Your task to perform on an android device: Open the Play Movies app and select the watchlist tab. Image 0: 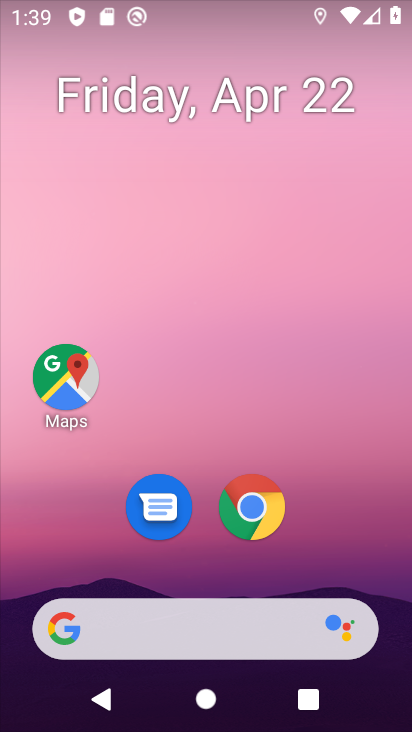
Step 0: drag from (209, 620) to (320, 69)
Your task to perform on an android device: Open the Play Movies app and select the watchlist tab. Image 1: 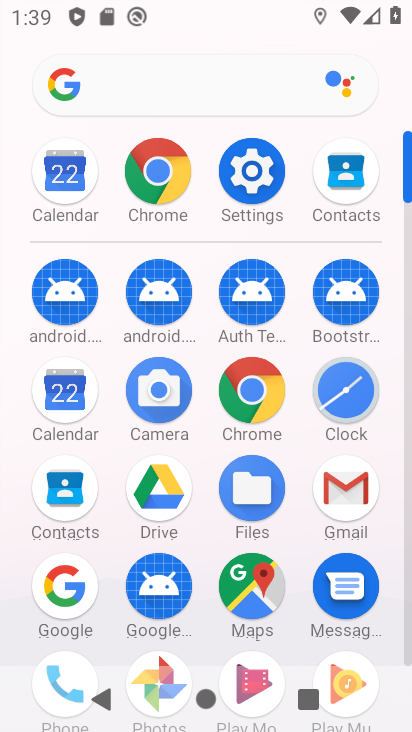
Step 1: drag from (216, 569) to (291, 317)
Your task to perform on an android device: Open the Play Movies app and select the watchlist tab. Image 2: 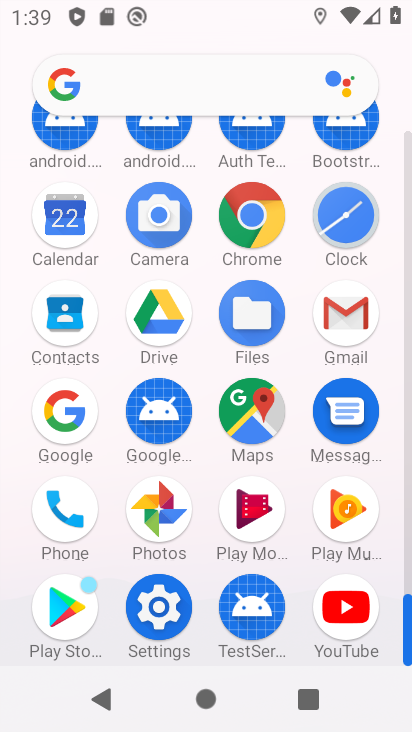
Step 2: click (246, 516)
Your task to perform on an android device: Open the Play Movies app and select the watchlist tab. Image 3: 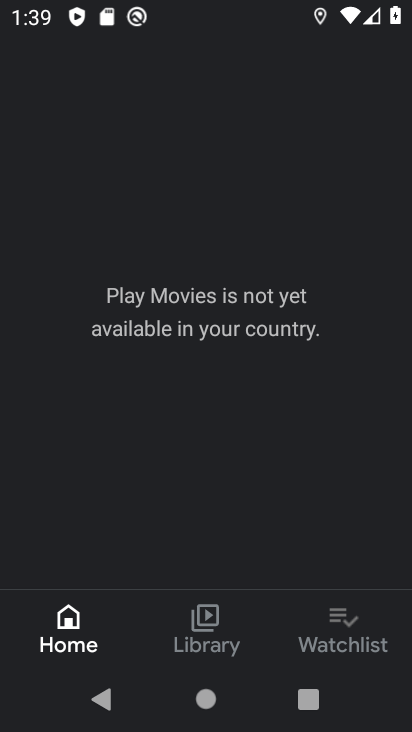
Step 3: click (345, 648)
Your task to perform on an android device: Open the Play Movies app and select the watchlist tab. Image 4: 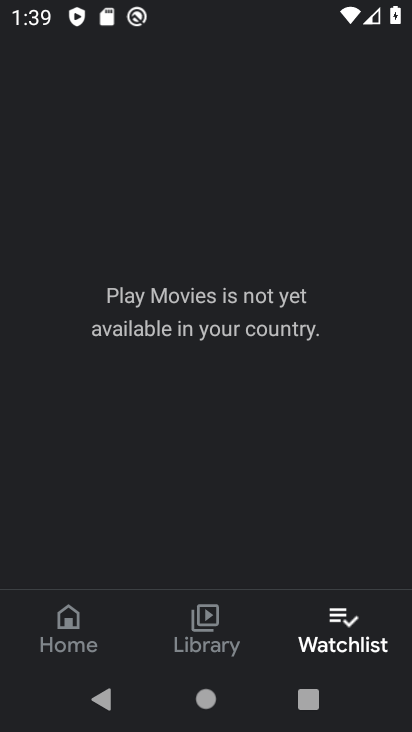
Step 4: task complete